Your task to perform on an android device: Is it going to rain tomorrow? Image 0: 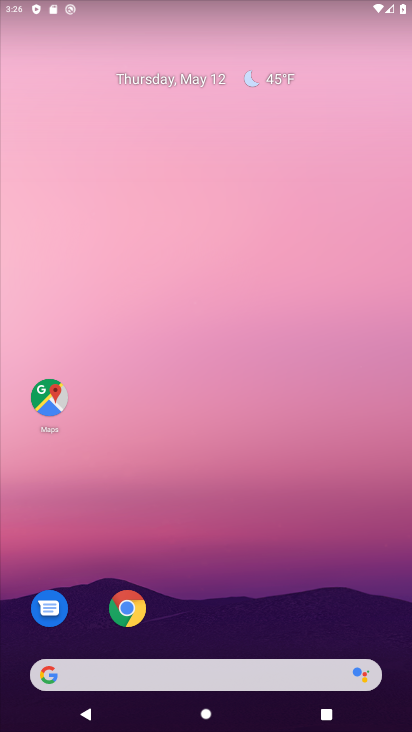
Step 0: click (282, 81)
Your task to perform on an android device: Is it going to rain tomorrow? Image 1: 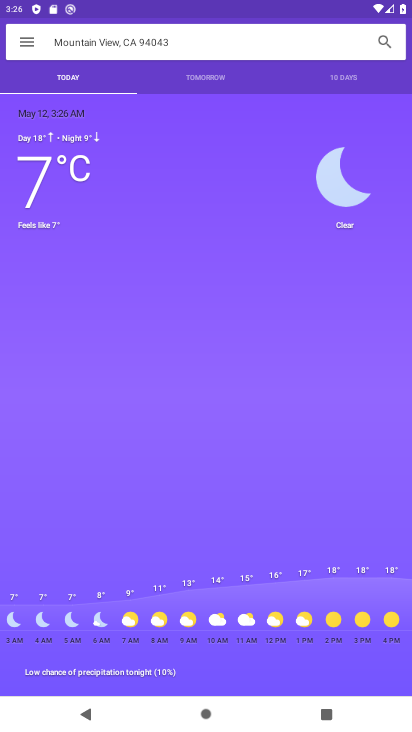
Step 1: click (215, 85)
Your task to perform on an android device: Is it going to rain tomorrow? Image 2: 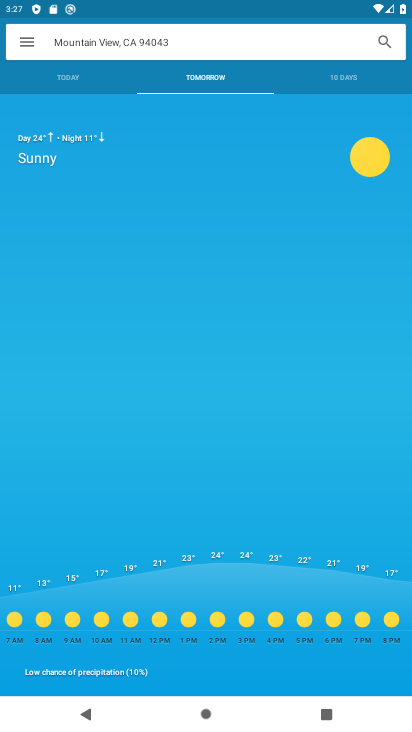
Step 2: task complete